Your task to perform on an android device: Search for sushi restaurants on Maps Image 0: 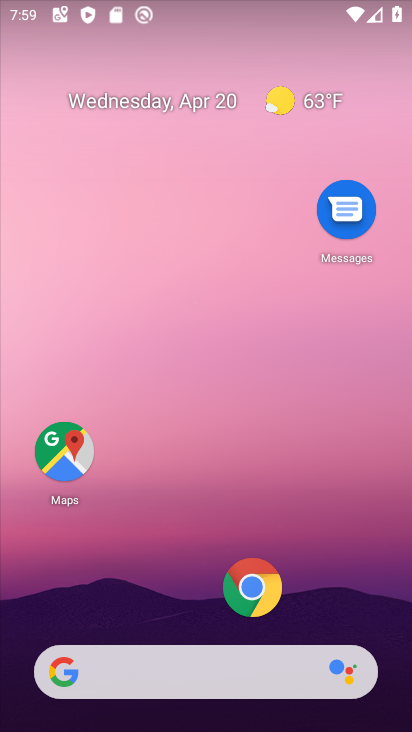
Step 0: drag from (177, 598) to (265, 178)
Your task to perform on an android device: Search for sushi restaurants on Maps Image 1: 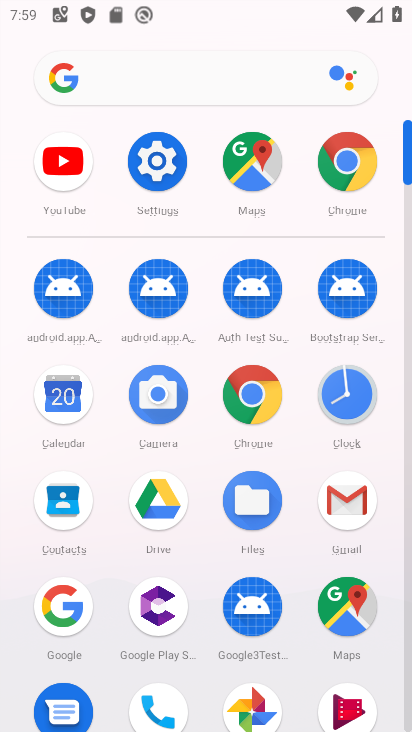
Step 1: click (262, 170)
Your task to perform on an android device: Search for sushi restaurants on Maps Image 2: 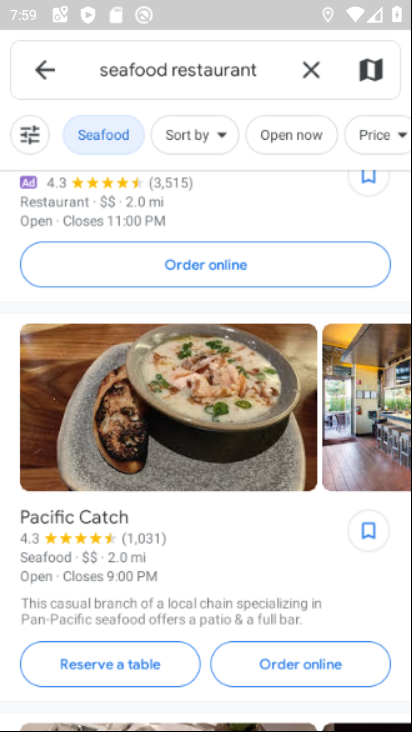
Step 2: click (308, 68)
Your task to perform on an android device: Search for sushi restaurants on Maps Image 3: 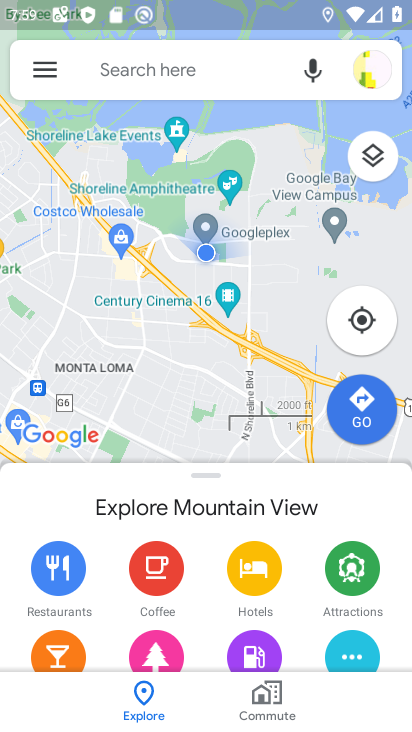
Step 3: click (157, 66)
Your task to perform on an android device: Search for sushi restaurants on Maps Image 4: 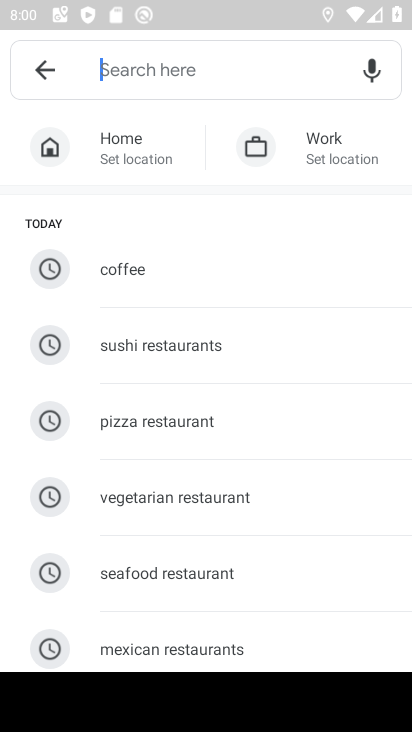
Step 4: click (157, 339)
Your task to perform on an android device: Search for sushi restaurants on Maps Image 5: 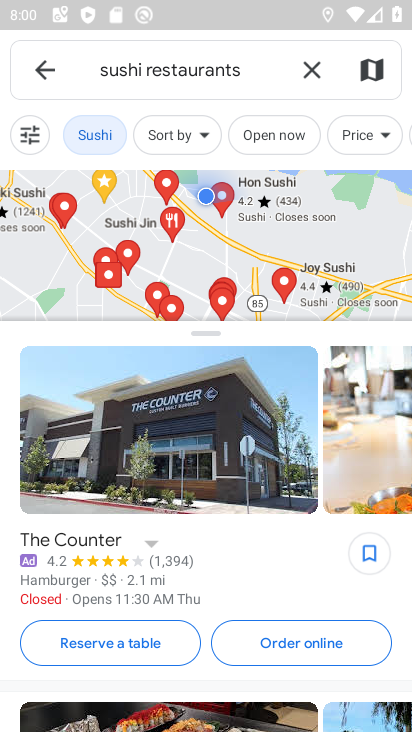
Step 5: task complete